Your task to perform on an android device: allow cookies in the chrome app Image 0: 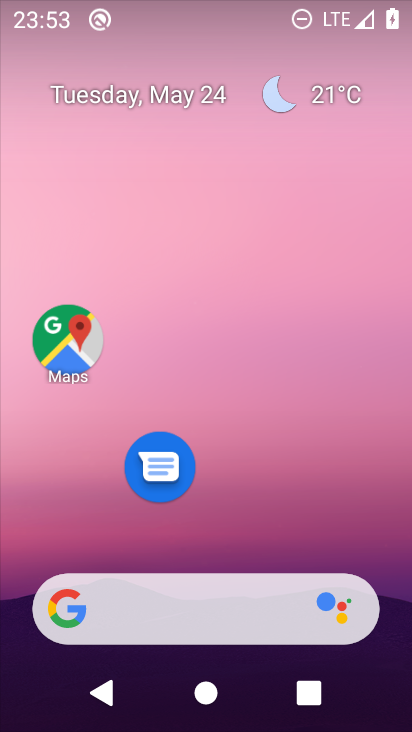
Step 0: drag from (220, 535) to (271, 88)
Your task to perform on an android device: allow cookies in the chrome app Image 1: 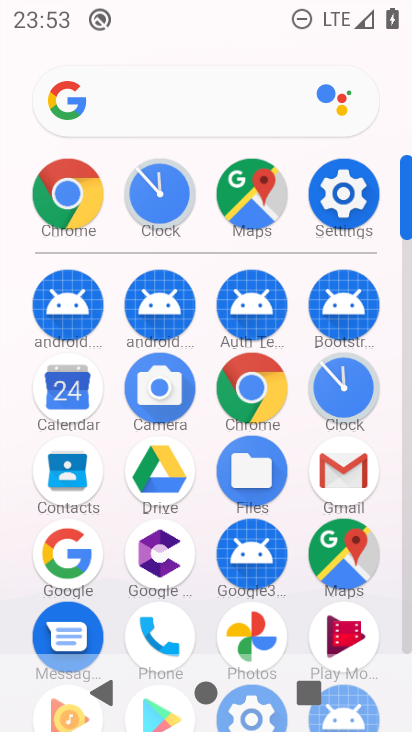
Step 1: drag from (211, 570) to (215, 348)
Your task to perform on an android device: allow cookies in the chrome app Image 2: 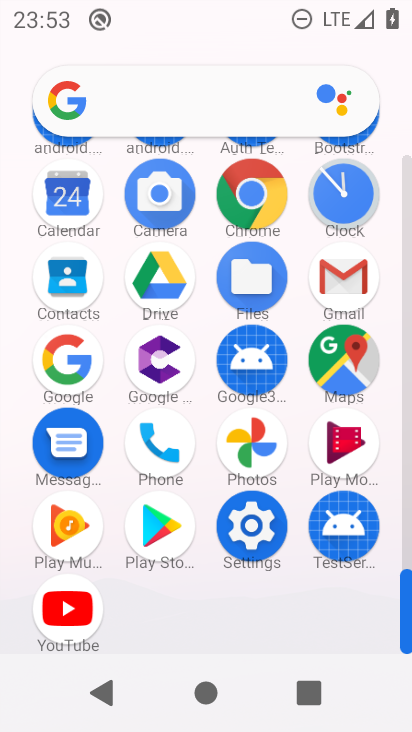
Step 2: drag from (198, 156) to (212, 609)
Your task to perform on an android device: allow cookies in the chrome app Image 3: 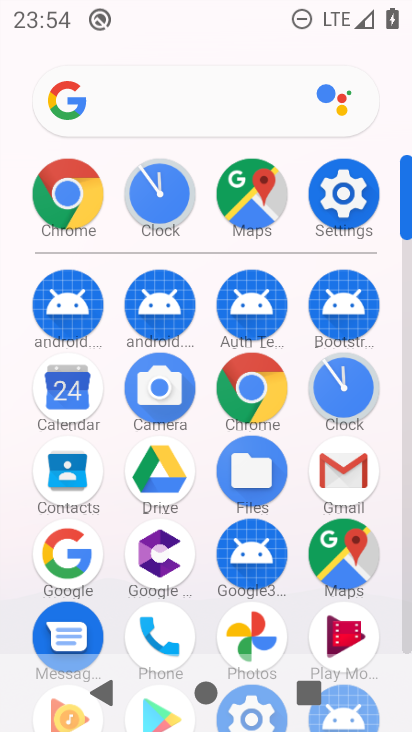
Step 3: drag from (208, 603) to (216, 280)
Your task to perform on an android device: allow cookies in the chrome app Image 4: 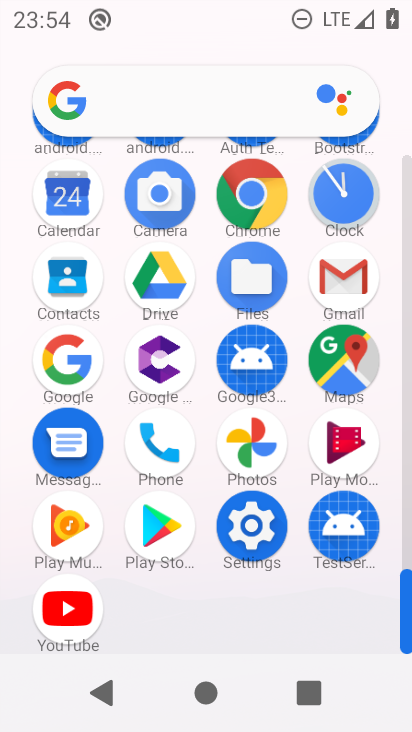
Step 4: drag from (210, 154) to (214, 266)
Your task to perform on an android device: allow cookies in the chrome app Image 5: 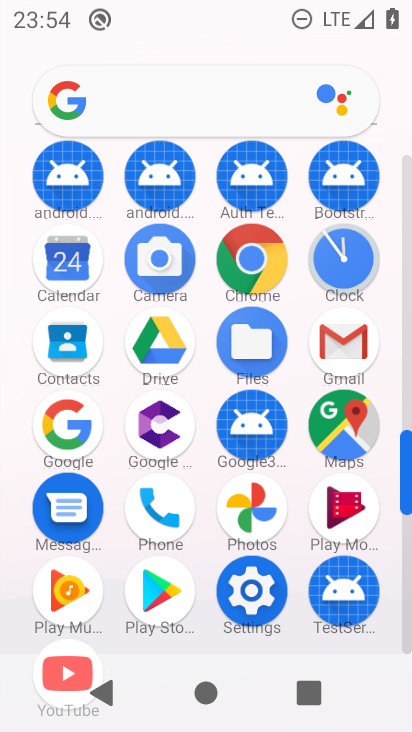
Step 5: click (252, 262)
Your task to perform on an android device: allow cookies in the chrome app Image 6: 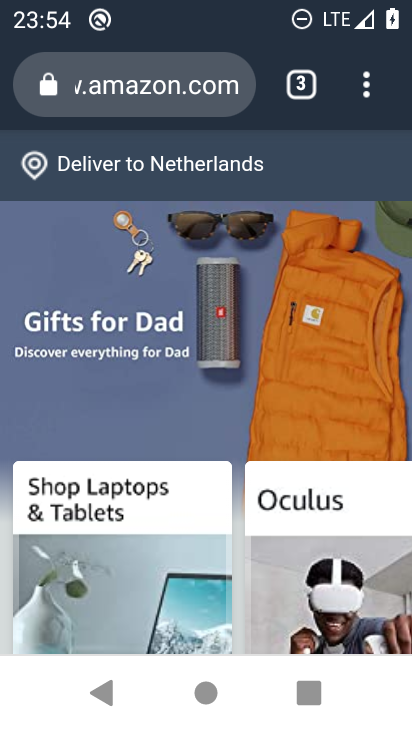
Step 6: drag from (241, 592) to (258, 307)
Your task to perform on an android device: allow cookies in the chrome app Image 7: 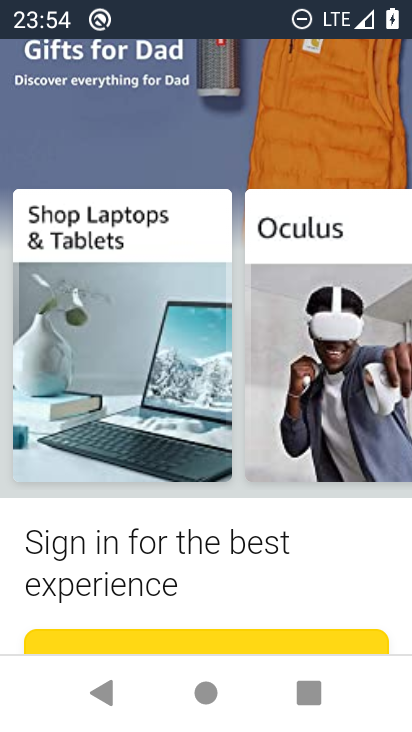
Step 7: drag from (247, 158) to (274, 652)
Your task to perform on an android device: allow cookies in the chrome app Image 8: 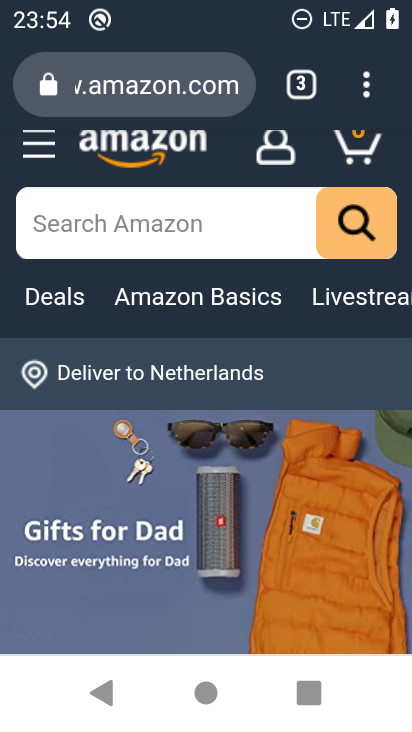
Step 8: drag from (236, 583) to (255, 185)
Your task to perform on an android device: allow cookies in the chrome app Image 9: 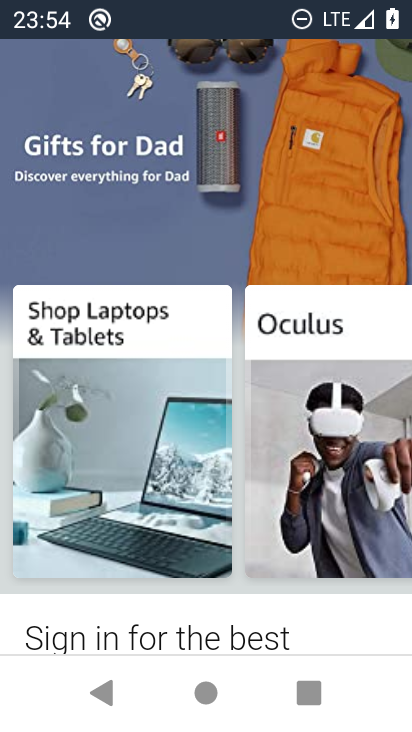
Step 9: drag from (239, 381) to (207, 191)
Your task to perform on an android device: allow cookies in the chrome app Image 10: 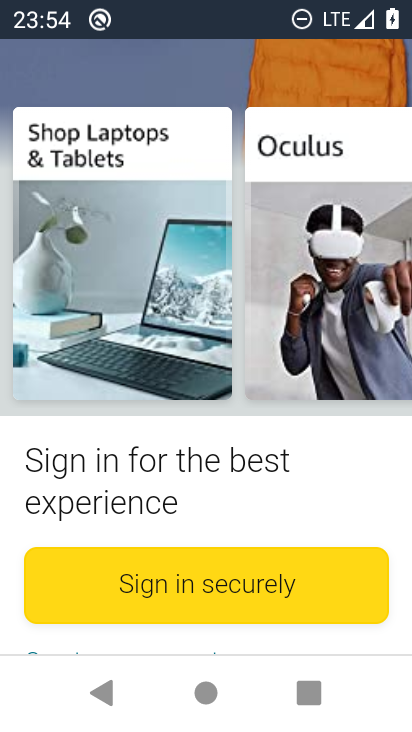
Step 10: drag from (233, 92) to (260, 488)
Your task to perform on an android device: allow cookies in the chrome app Image 11: 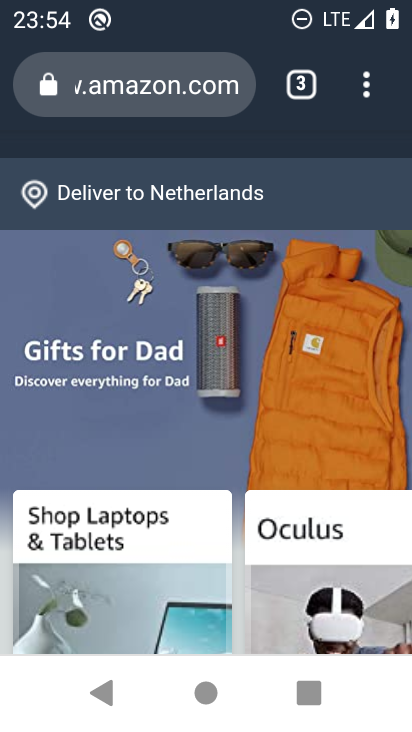
Step 11: click (370, 80)
Your task to perform on an android device: allow cookies in the chrome app Image 12: 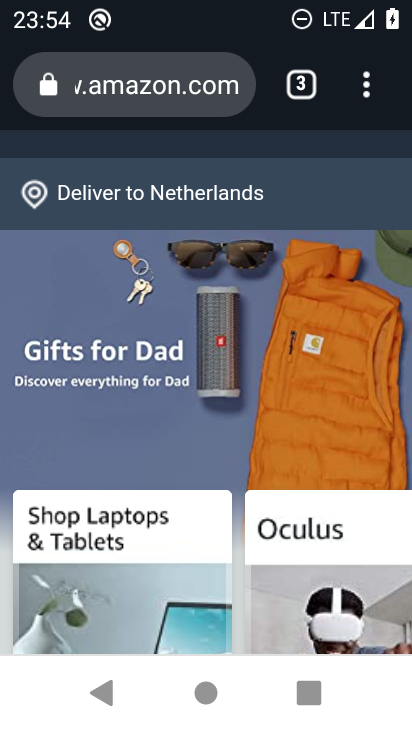
Step 12: click (367, 82)
Your task to perform on an android device: allow cookies in the chrome app Image 13: 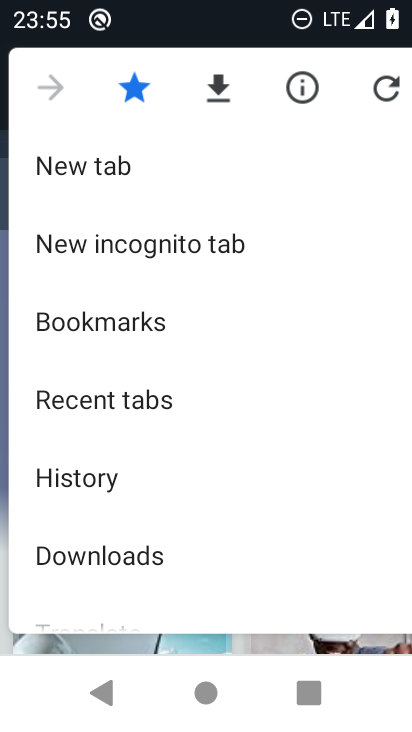
Step 13: drag from (129, 494) to (158, 176)
Your task to perform on an android device: allow cookies in the chrome app Image 14: 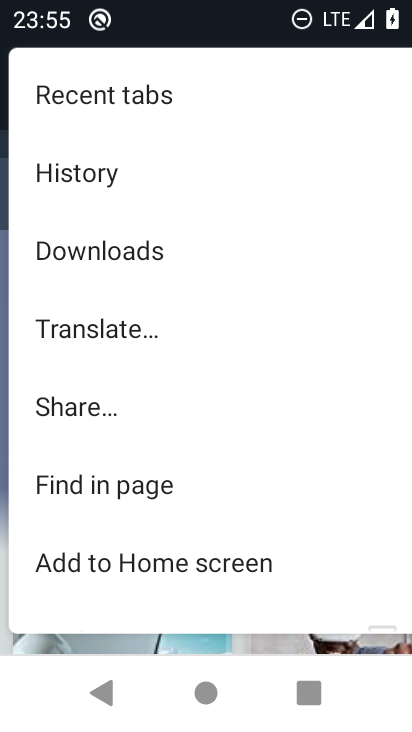
Step 14: drag from (139, 482) to (189, 142)
Your task to perform on an android device: allow cookies in the chrome app Image 15: 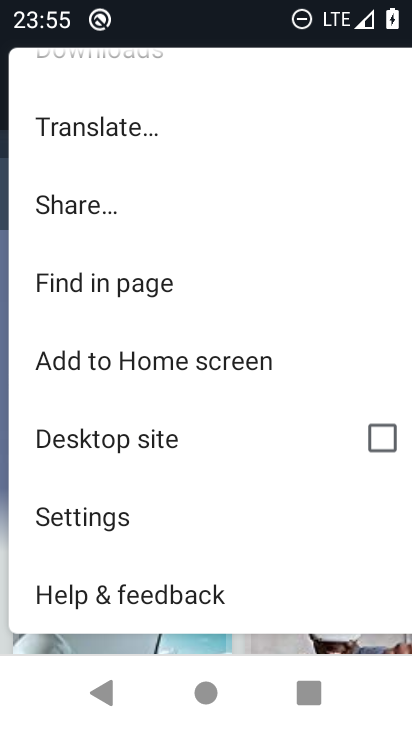
Step 15: click (126, 511)
Your task to perform on an android device: allow cookies in the chrome app Image 16: 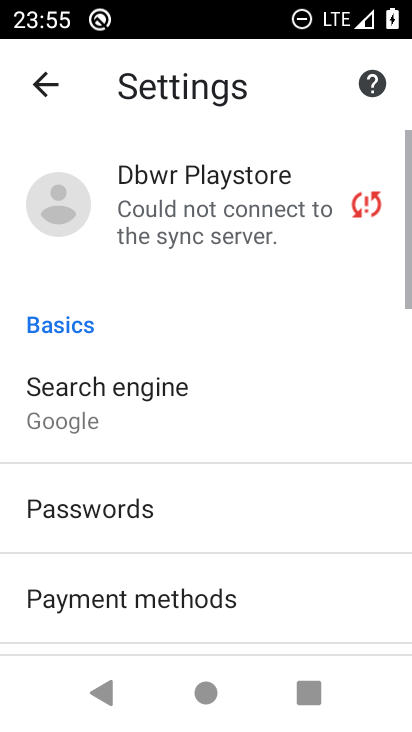
Step 16: drag from (188, 515) to (197, 251)
Your task to perform on an android device: allow cookies in the chrome app Image 17: 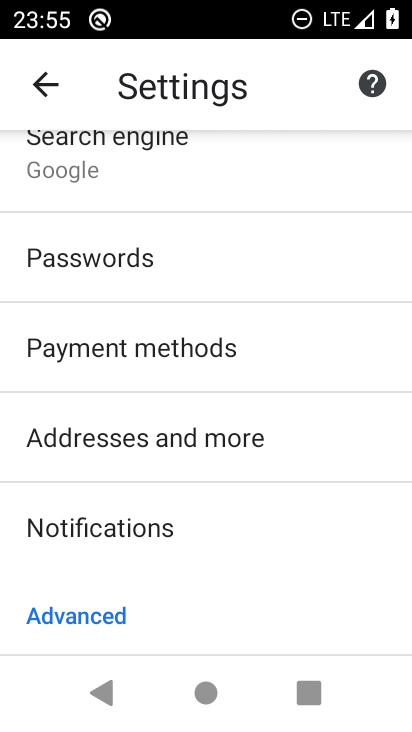
Step 17: drag from (158, 582) to (233, 212)
Your task to perform on an android device: allow cookies in the chrome app Image 18: 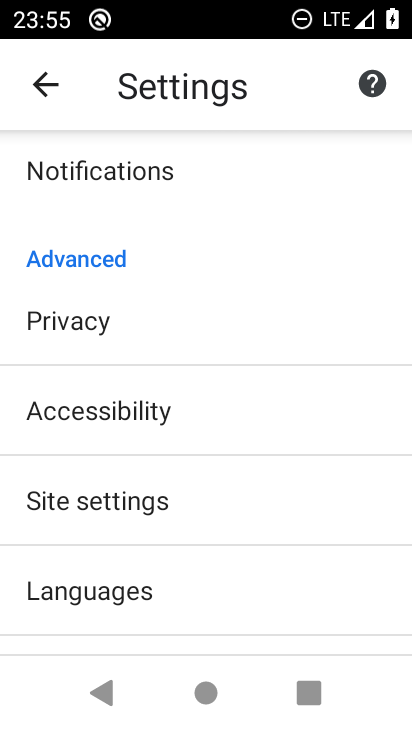
Step 18: click (133, 501)
Your task to perform on an android device: allow cookies in the chrome app Image 19: 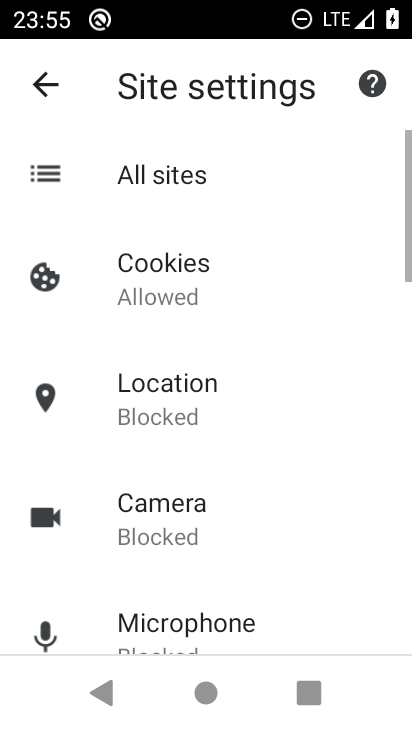
Step 19: click (241, 284)
Your task to perform on an android device: allow cookies in the chrome app Image 20: 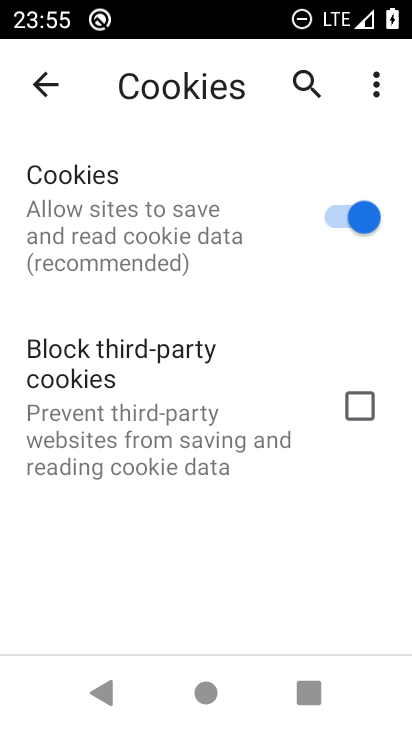
Step 20: task complete